Your task to perform on an android device: check storage Image 0: 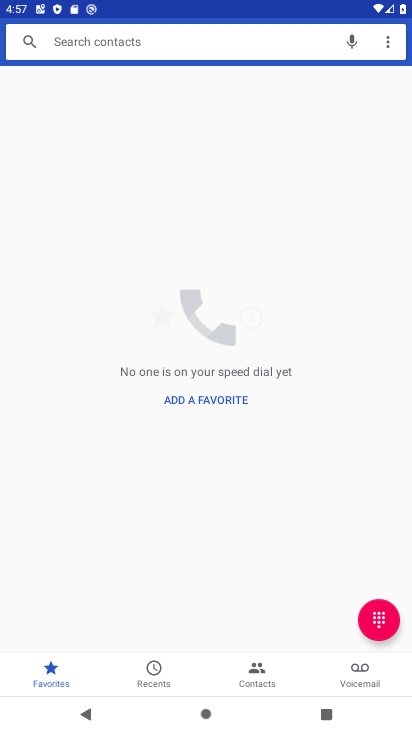
Step 0: drag from (222, 10) to (278, 558)
Your task to perform on an android device: check storage Image 1: 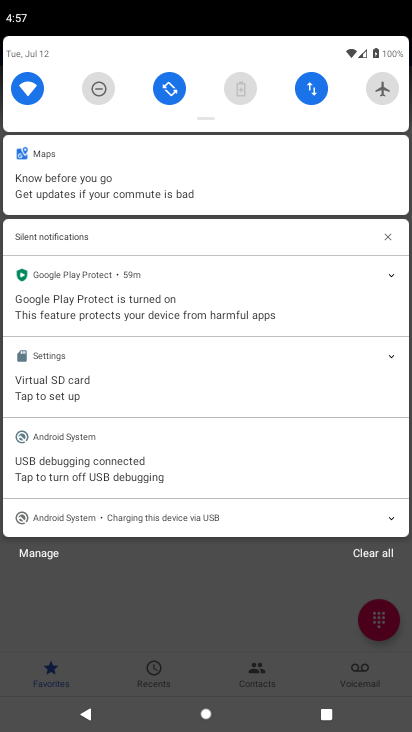
Step 1: drag from (189, 65) to (242, 542)
Your task to perform on an android device: check storage Image 2: 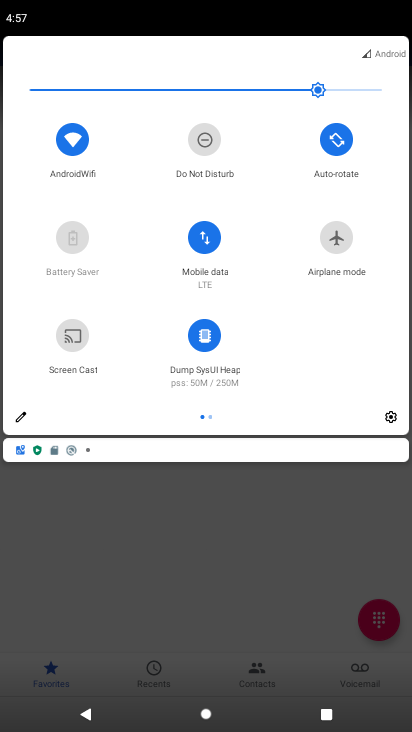
Step 2: click (388, 425)
Your task to perform on an android device: check storage Image 3: 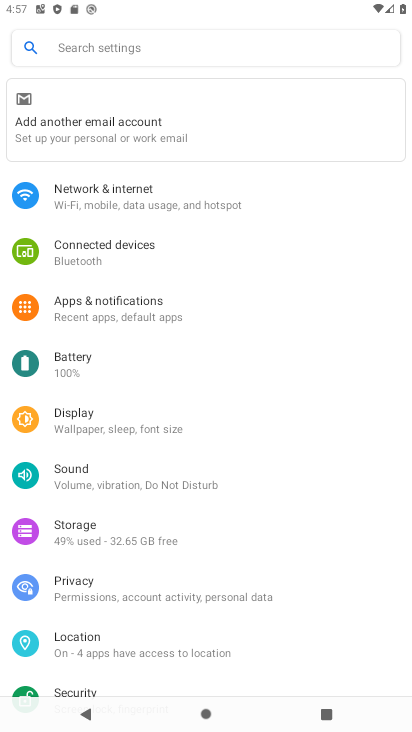
Step 3: click (63, 534)
Your task to perform on an android device: check storage Image 4: 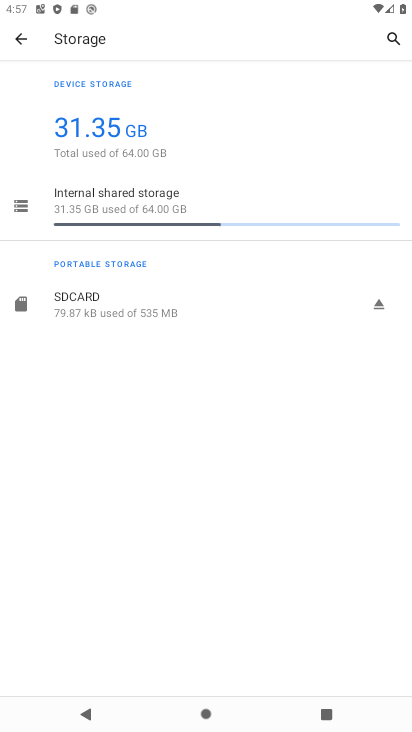
Step 4: task complete